Your task to perform on an android device: Show me popular videos on Youtube Image 0: 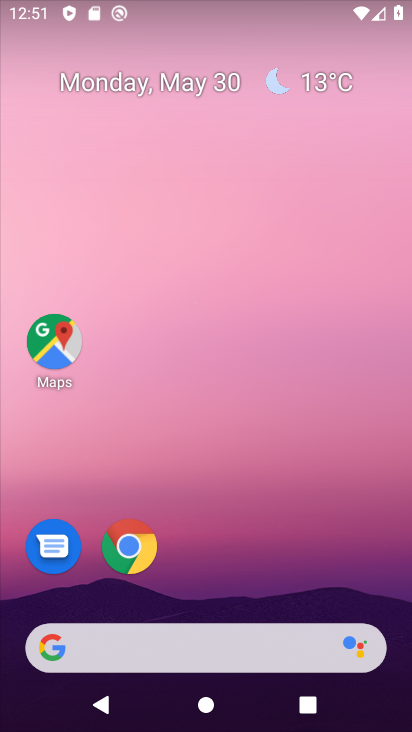
Step 0: press home button
Your task to perform on an android device: Show me popular videos on Youtube Image 1: 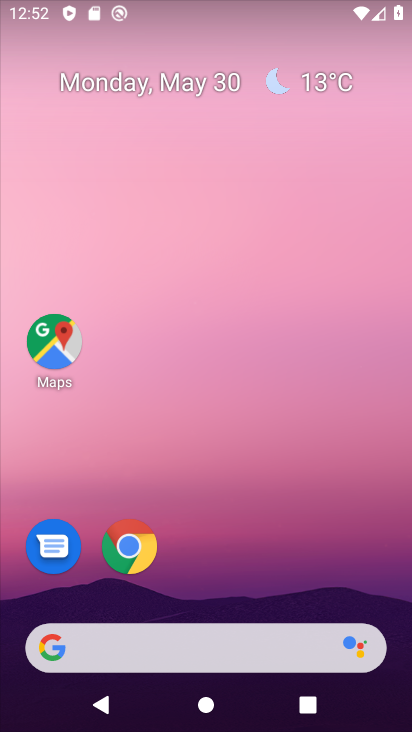
Step 1: drag from (276, 585) to (283, 194)
Your task to perform on an android device: Show me popular videos on Youtube Image 2: 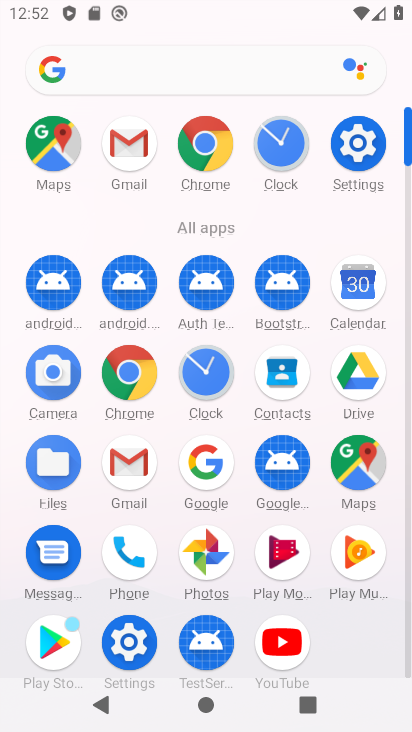
Step 2: click (302, 642)
Your task to perform on an android device: Show me popular videos on Youtube Image 3: 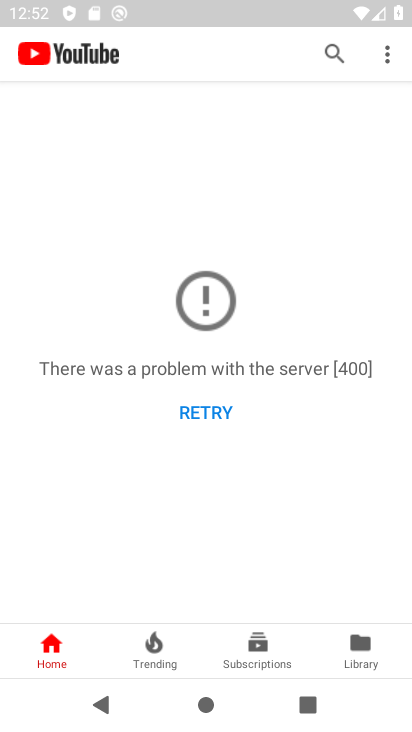
Step 3: click (200, 413)
Your task to perform on an android device: Show me popular videos on Youtube Image 4: 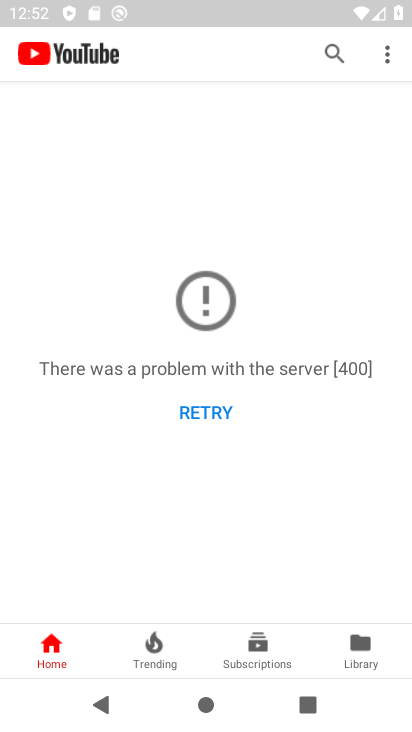
Step 4: click (200, 413)
Your task to perform on an android device: Show me popular videos on Youtube Image 5: 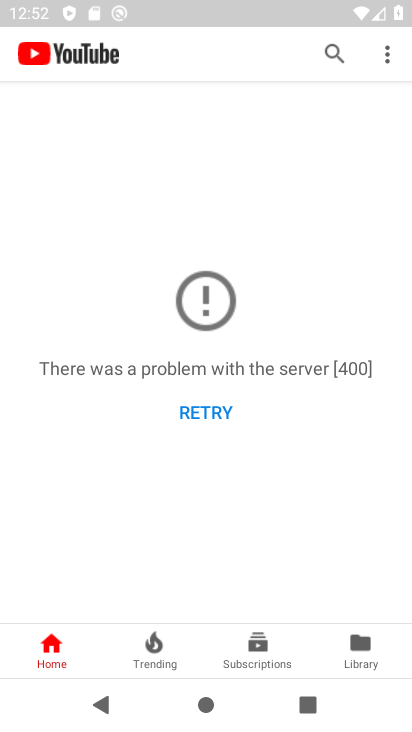
Step 5: click (202, 412)
Your task to perform on an android device: Show me popular videos on Youtube Image 6: 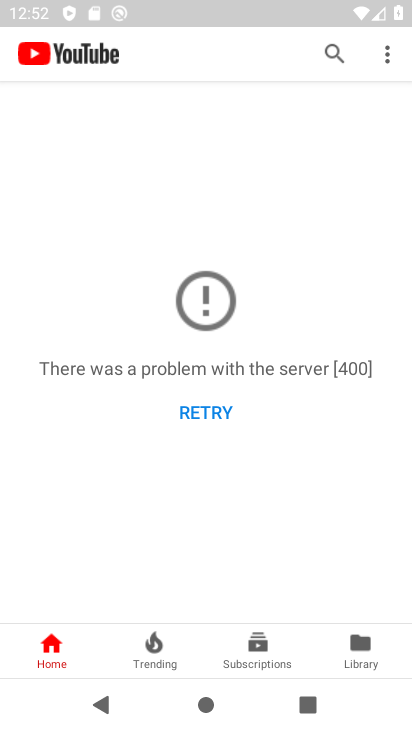
Step 6: click (202, 412)
Your task to perform on an android device: Show me popular videos on Youtube Image 7: 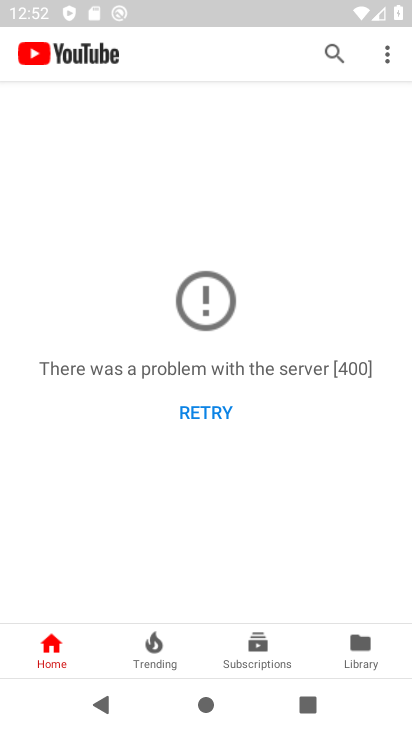
Step 7: click (213, 412)
Your task to perform on an android device: Show me popular videos on Youtube Image 8: 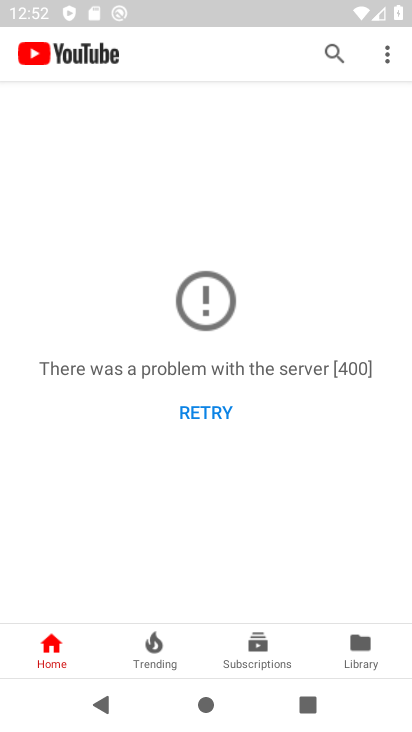
Step 8: task complete